Your task to perform on an android device: install app "Microsoft Outlook" Image 0: 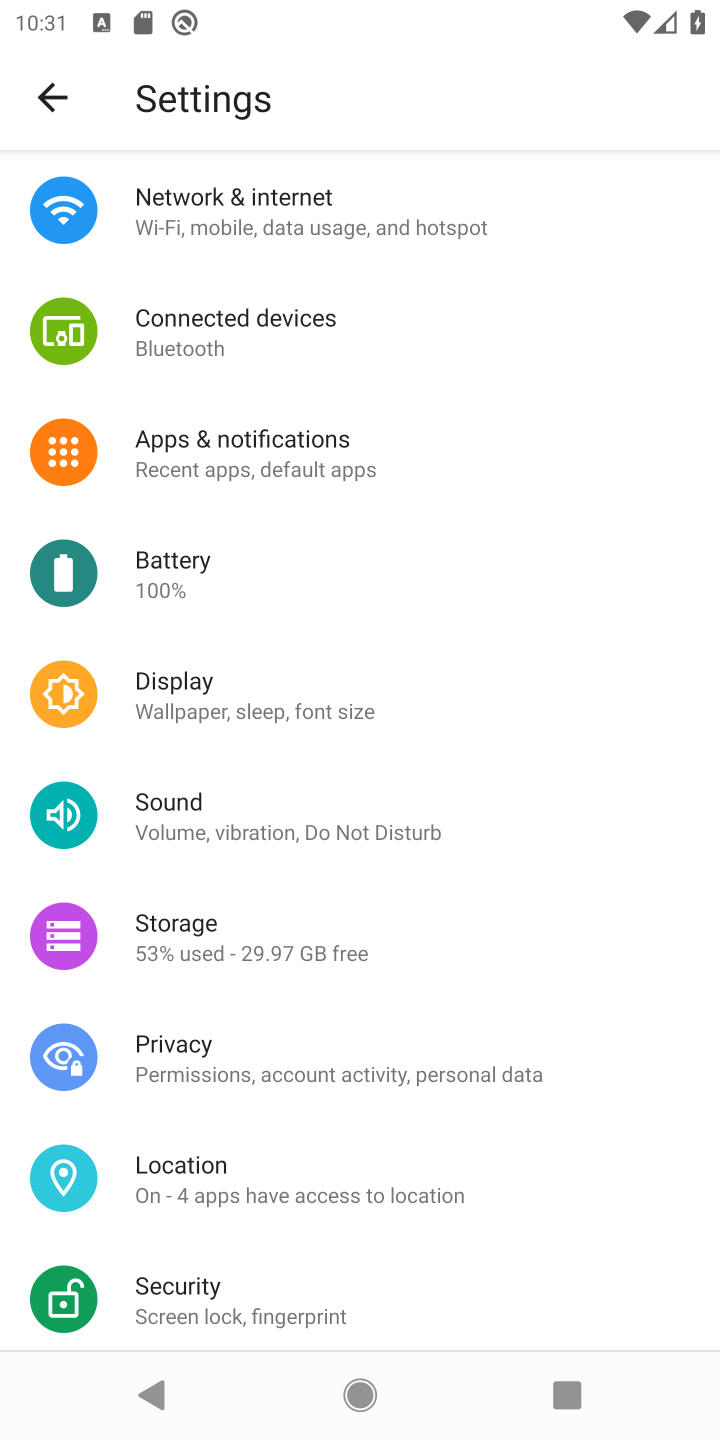
Step 0: press home button
Your task to perform on an android device: install app "Microsoft Outlook" Image 1: 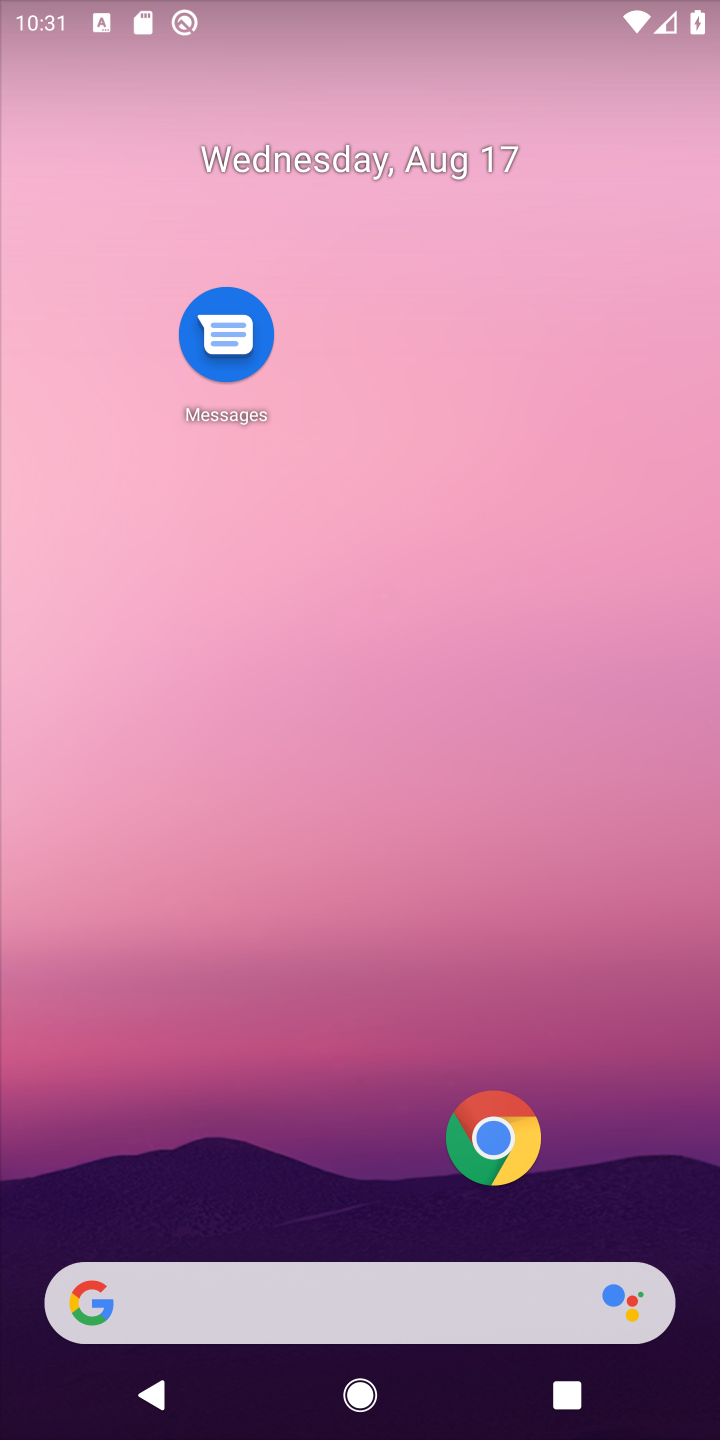
Step 1: drag from (321, 1233) to (351, 188)
Your task to perform on an android device: install app "Microsoft Outlook" Image 2: 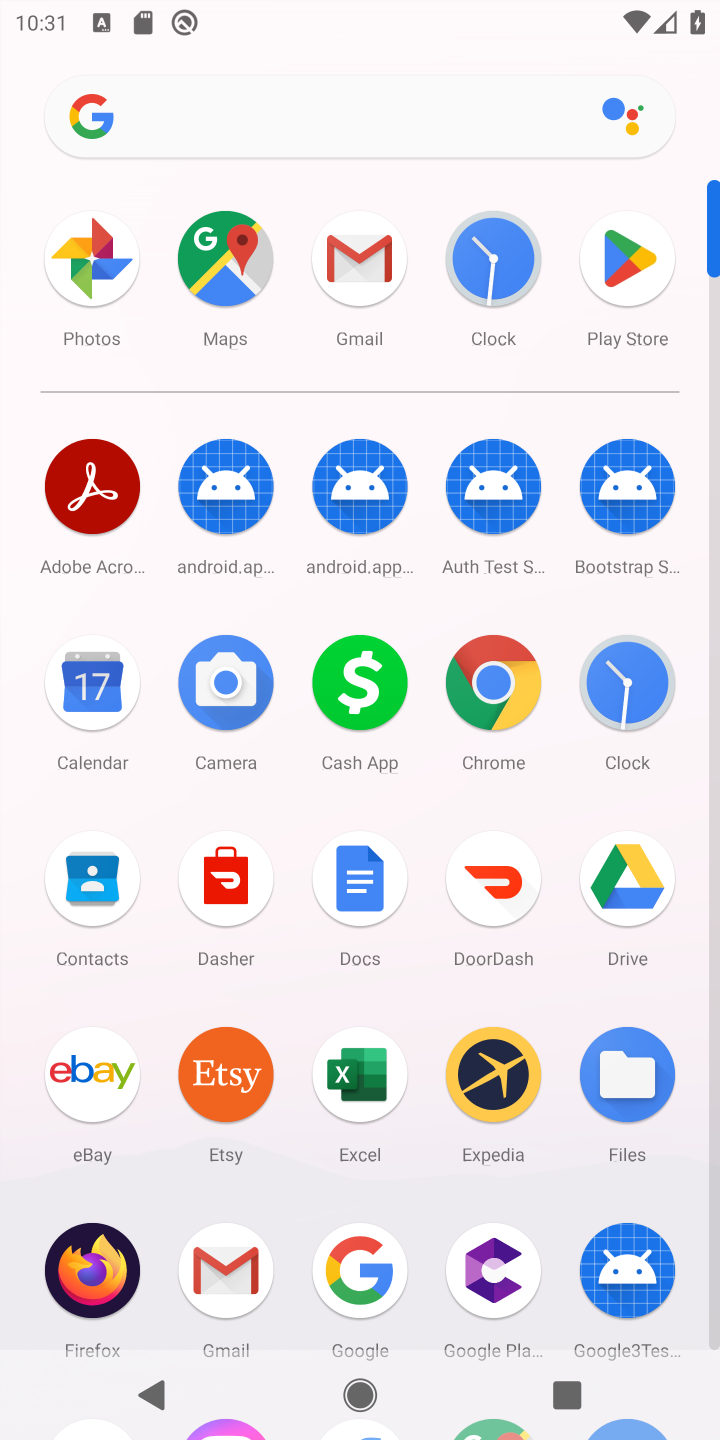
Step 2: click (619, 253)
Your task to perform on an android device: install app "Microsoft Outlook" Image 3: 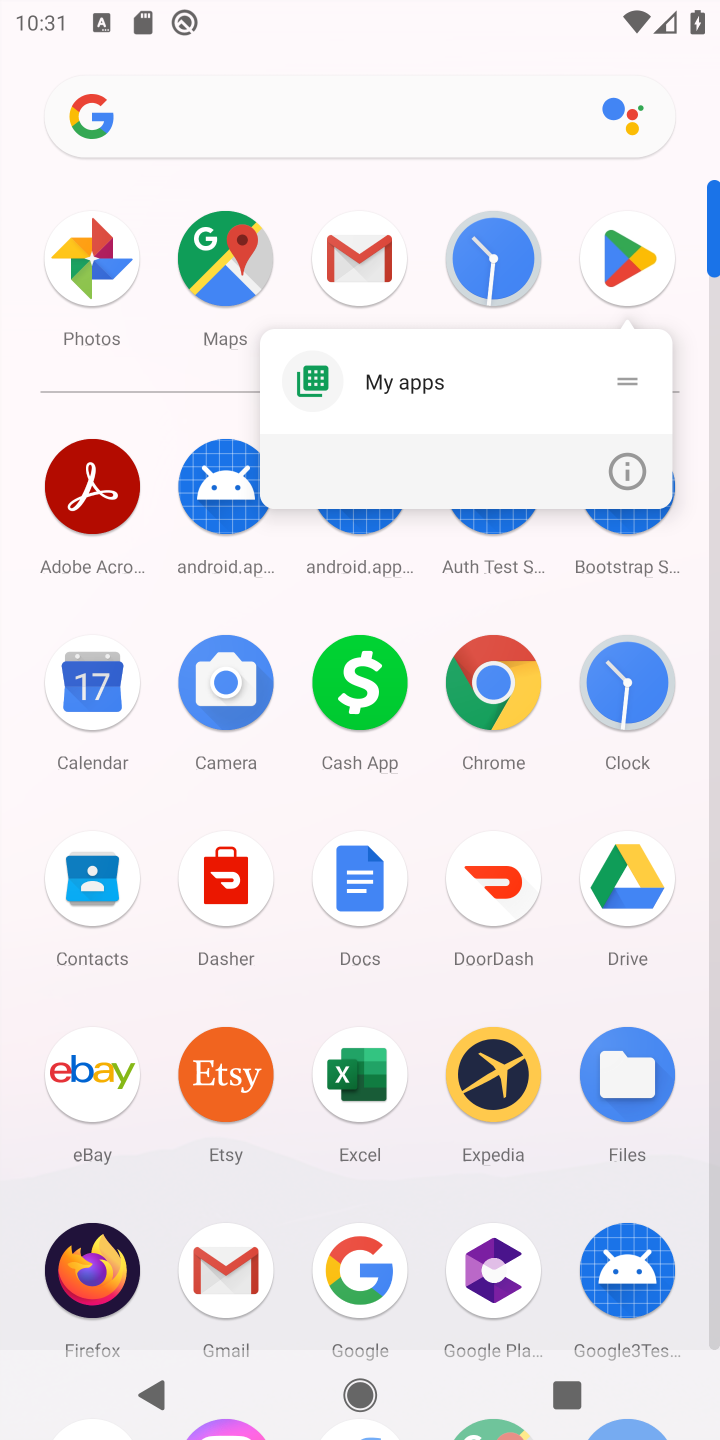
Step 3: click (619, 253)
Your task to perform on an android device: install app "Microsoft Outlook" Image 4: 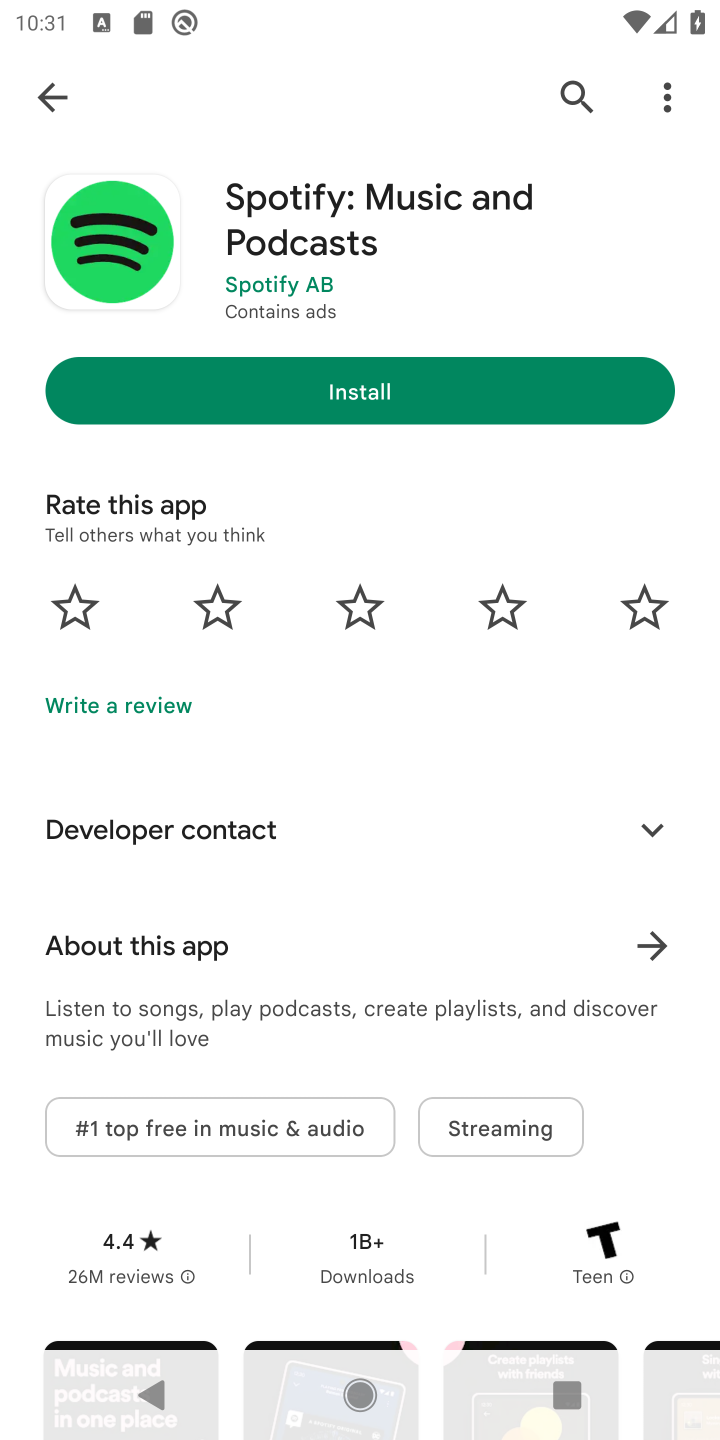
Step 4: click (77, 105)
Your task to perform on an android device: install app "Microsoft Outlook" Image 5: 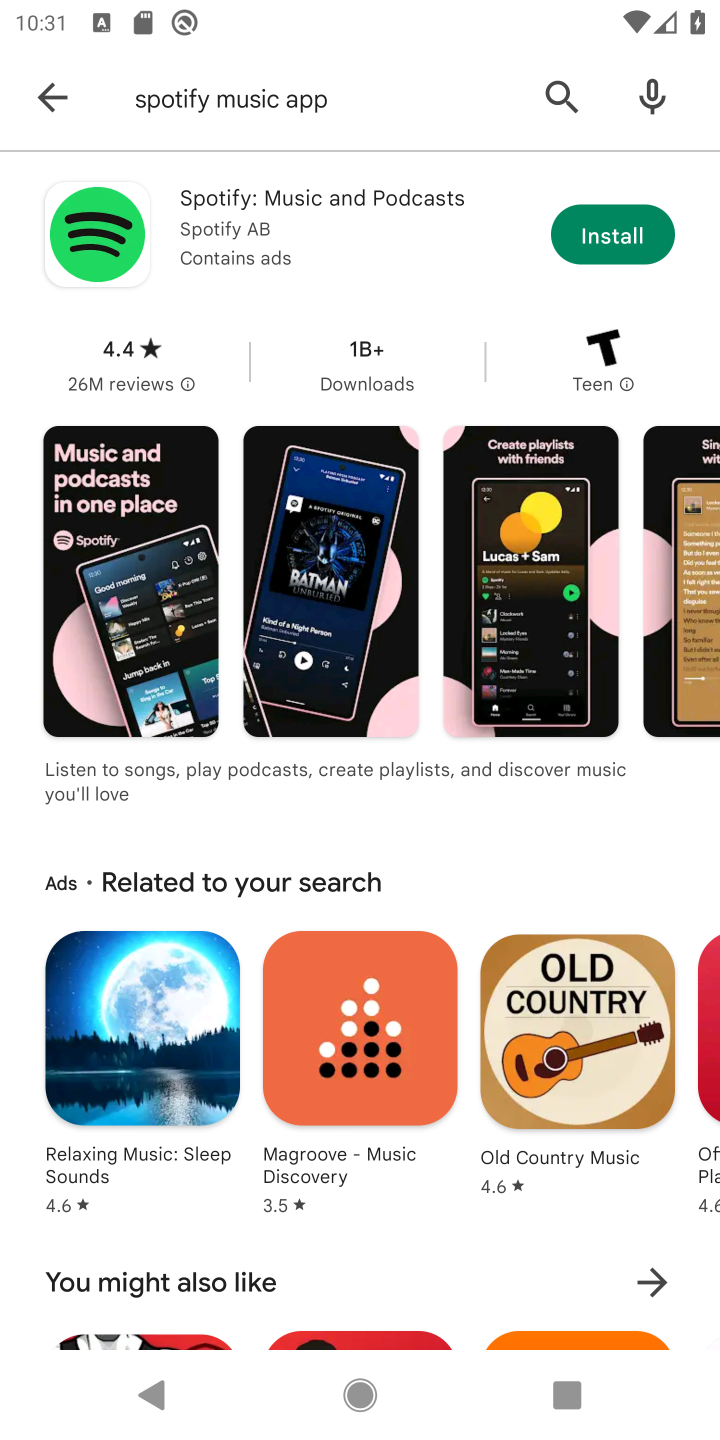
Step 5: click (42, 73)
Your task to perform on an android device: install app "Microsoft Outlook" Image 6: 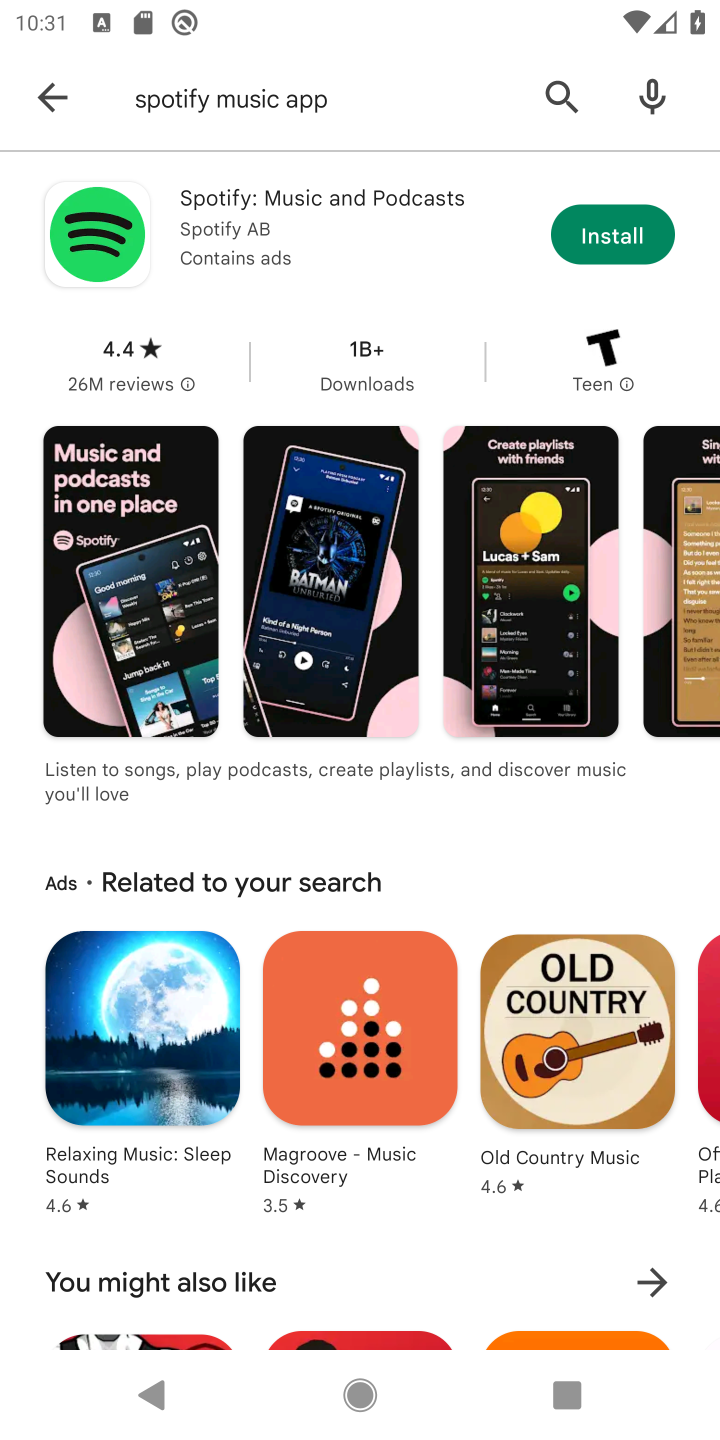
Step 6: click (561, 93)
Your task to perform on an android device: install app "Microsoft Outlook" Image 7: 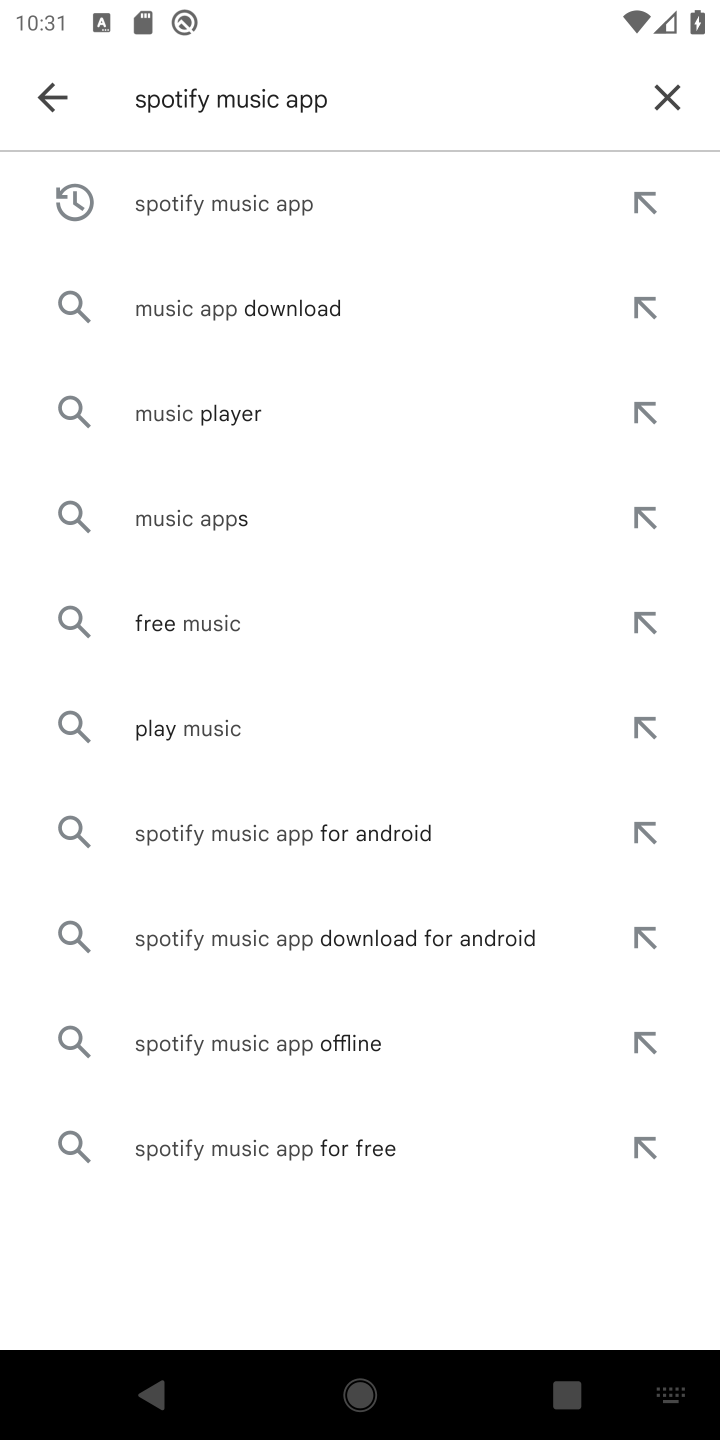
Step 7: click (675, 104)
Your task to perform on an android device: install app "Microsoft Outlook" Image 8: 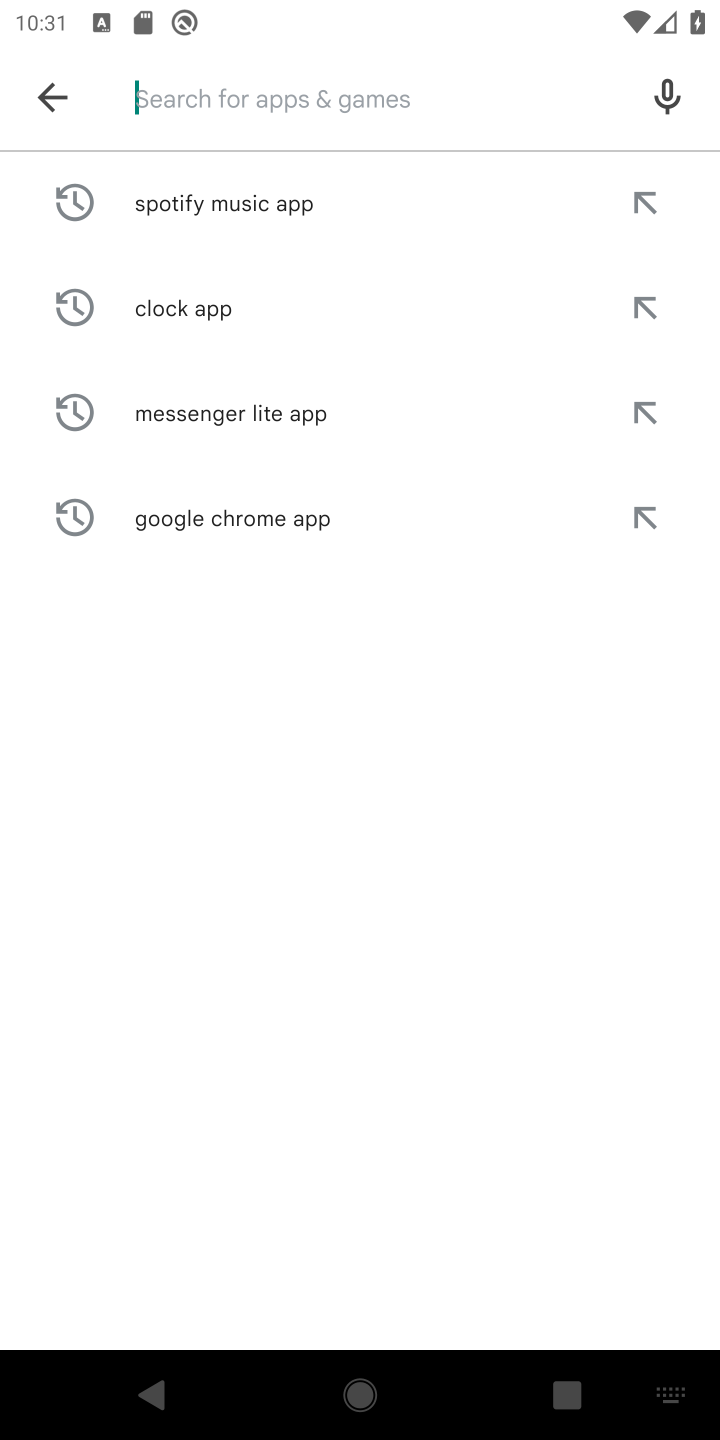
Step 8: click (321, 77)
Your task to perform on an android device: install app "Microsoft Outlook" Image 9: 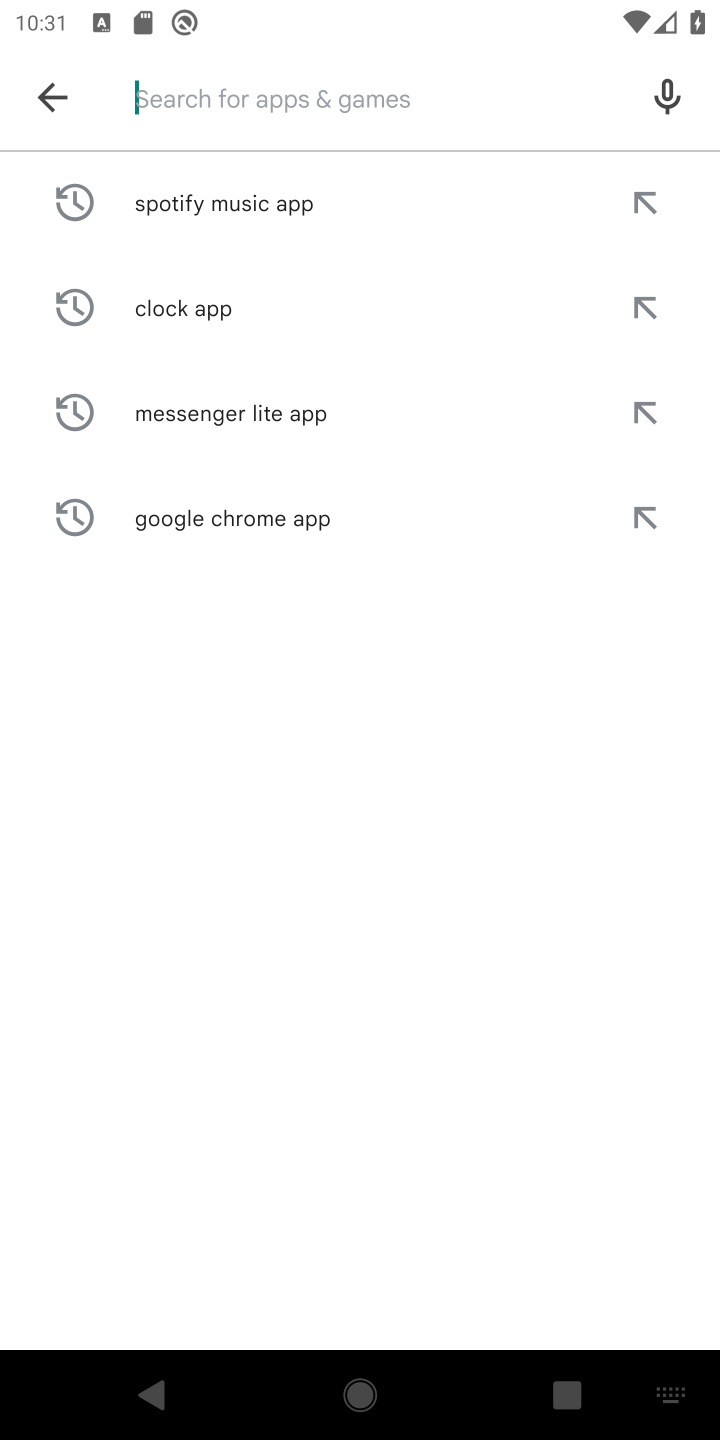
Step 9: type "Microsoft Outlook "
Your task to perform on an android device: install app "Microsoft Outlook" Image 10: 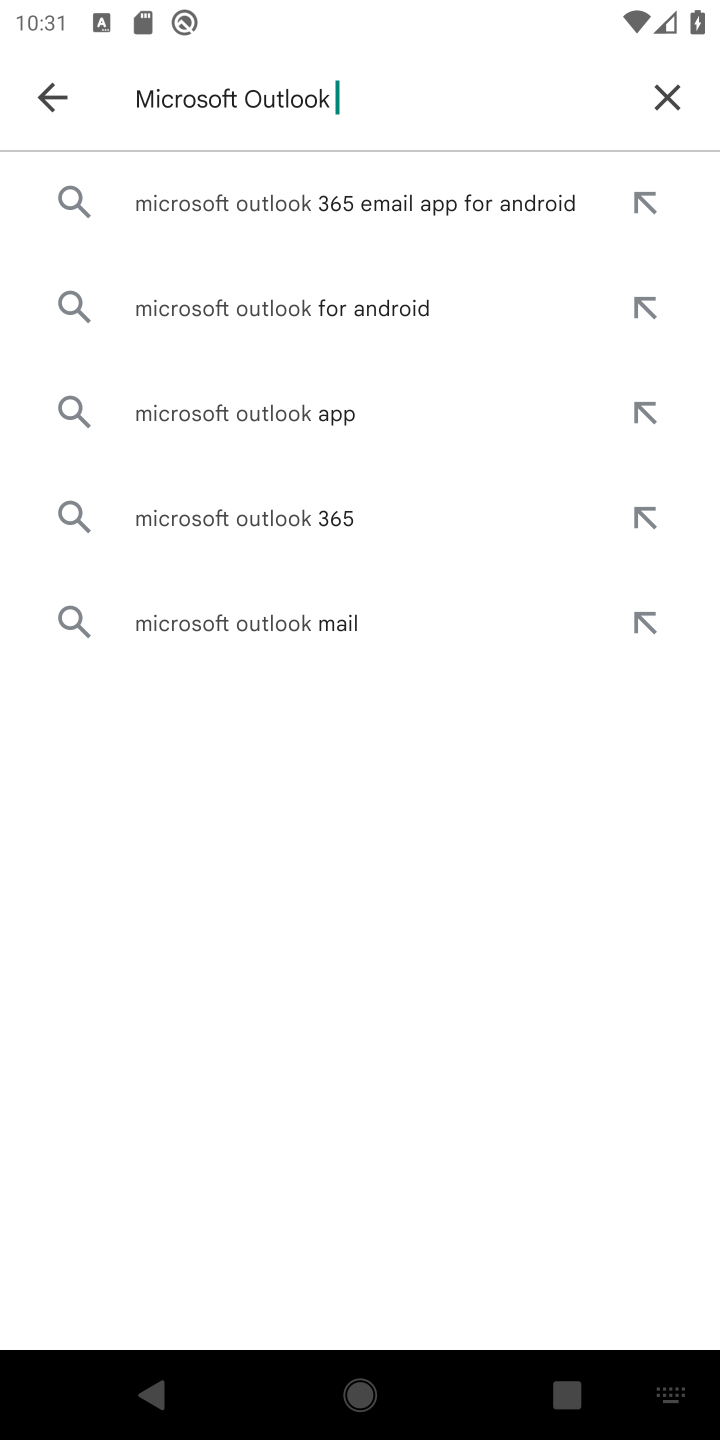
Step 10: click (327, 214)
Your task to perform on an android device: install app "Microsoft Outlook" Image 11: 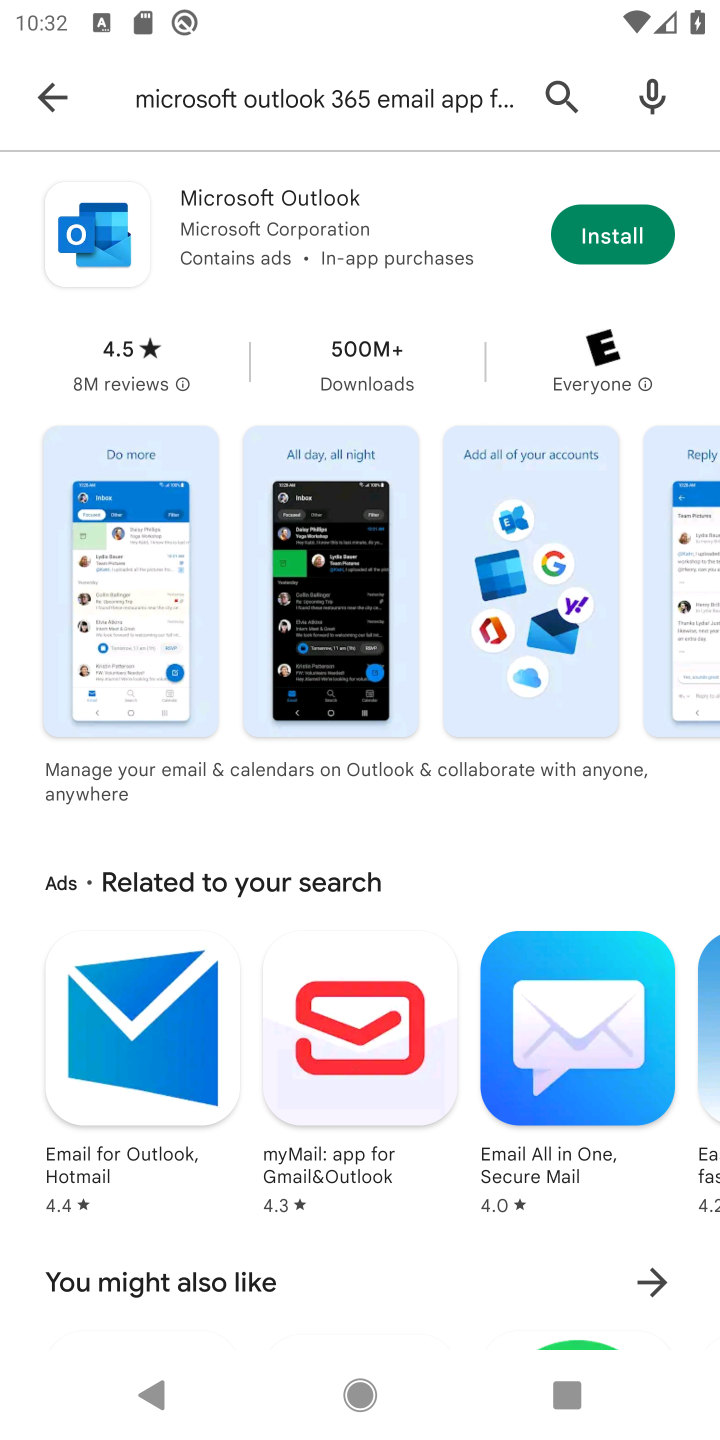
Step 11: click (601, 228)
Your task to perform on an android device: install app "Microsoft Outlook" Image 12: 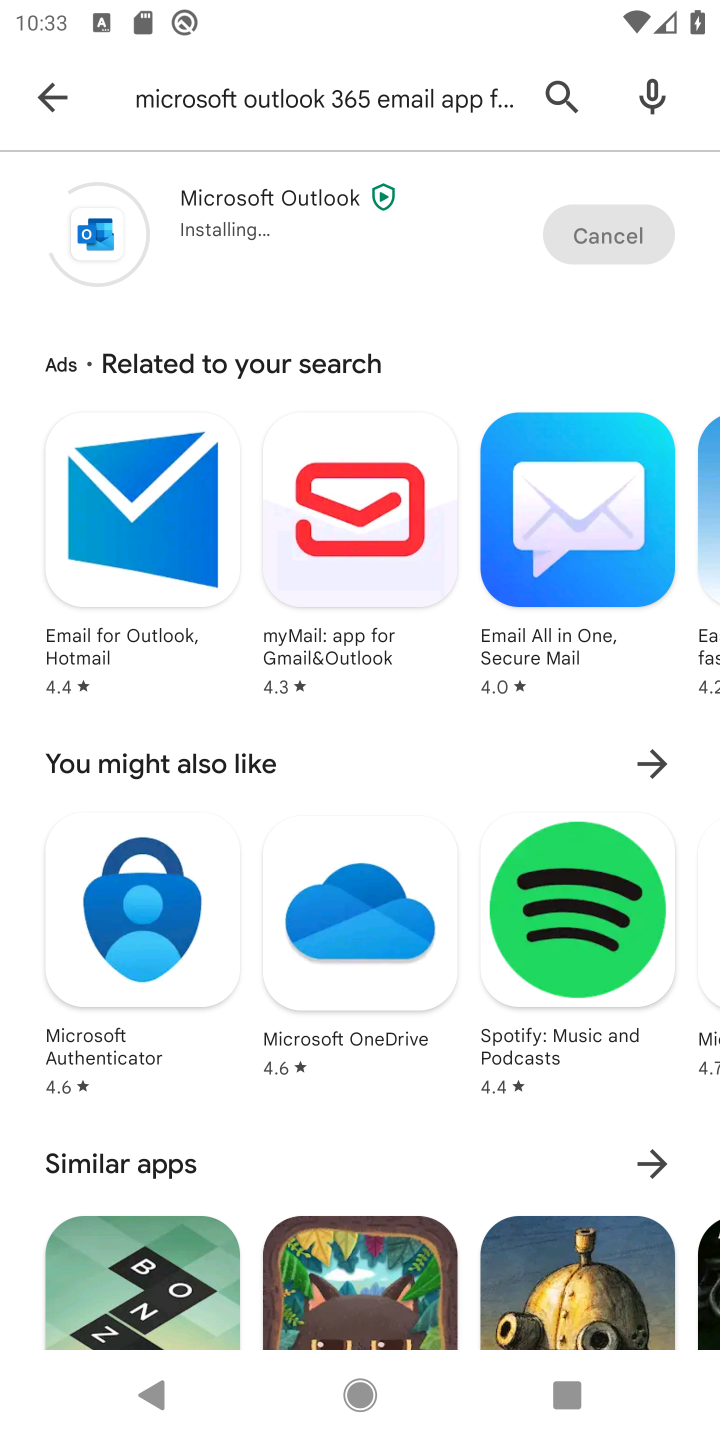
Step 12: task complete